Your task to perform on an android device: empty trash in the gmail app Image 0: 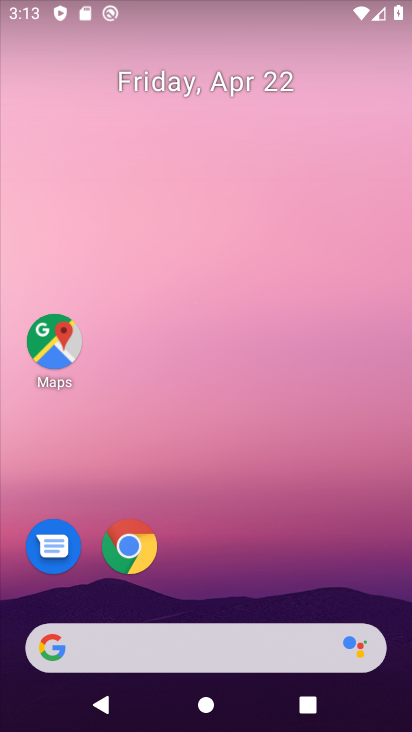
Step 0: drag from (270, 571) to (287, 118)
Your task to perform on an android device: empty trash in the gmail app Image 1: 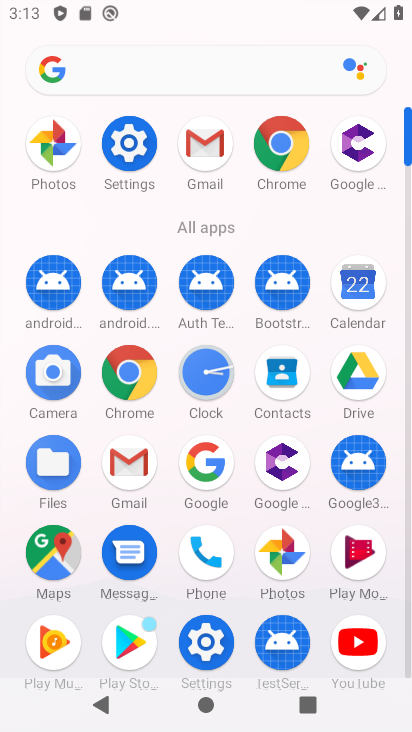
Step 1: click (216, 163)
Your task to perform on an android device: empty trash in the gmail app Image 2: 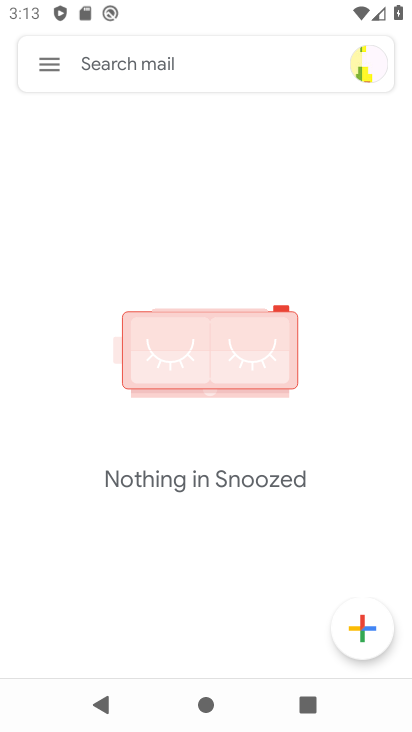
Step 2: click (52, 69)
Your task to perform on an android device: empty trash in the gmail app Image 3: 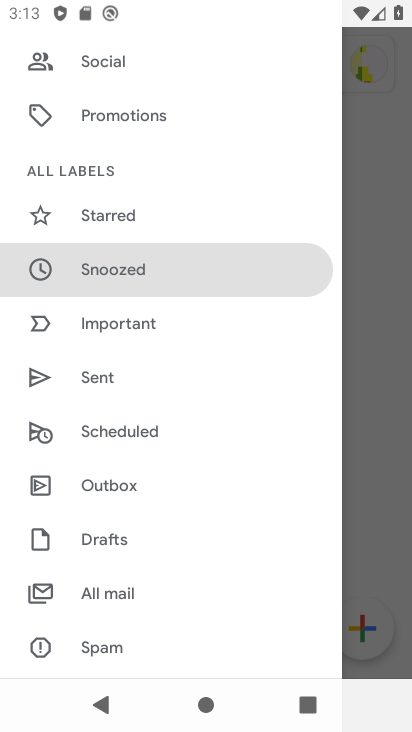
Step 3: drag from (188, 256) to (212, 664)
Your task to perform on an android device: empty trash in the gmail app Image 4: 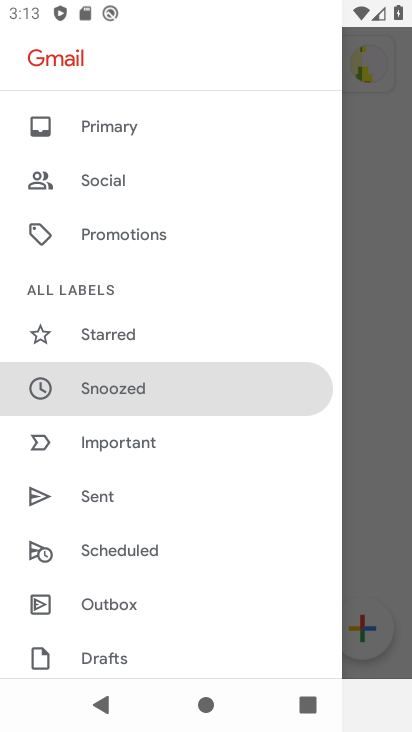
Step 4: drag from (167, 266) to (202, 330)
Your task to perform on an android device: empty trash in the gmail app Image 5: 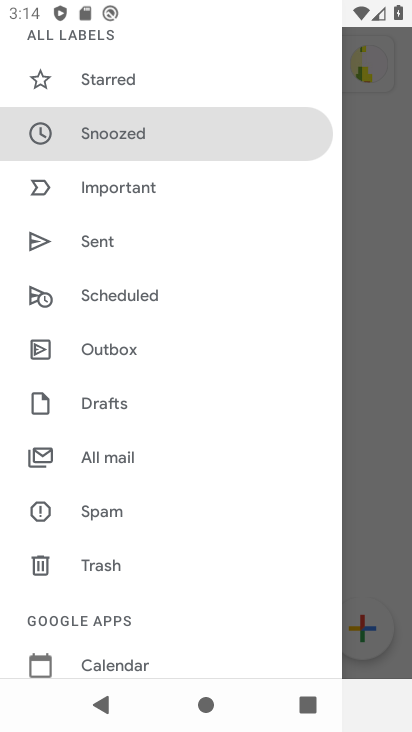
Step 5: click (108, 571)
Your task to perform on an android device: empty trash in the gmail app Image 6: 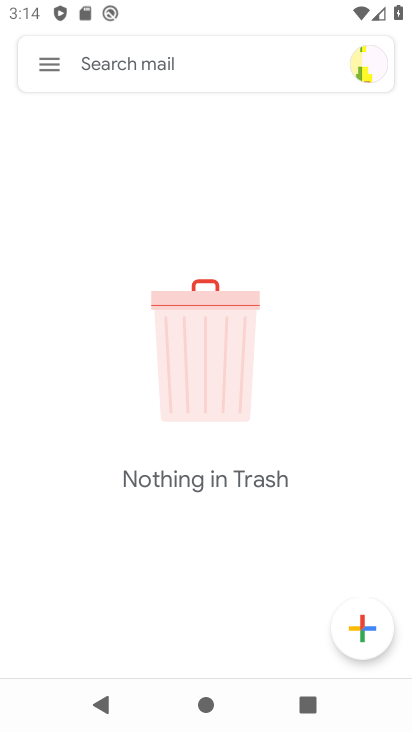
Step 6: task complete